Your task to perform on an android device: check the backup settings in the google photos Image 0: 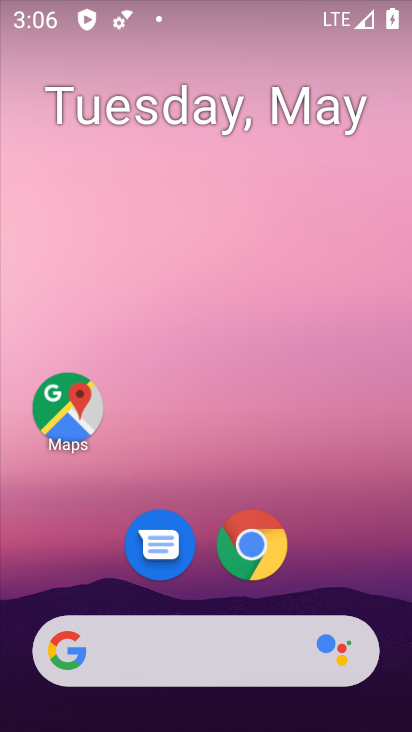
Step 0: drag from (316, 531) to (325, 188)
Your task to perform on an android device: check the backup settings in the google photos Image 1: 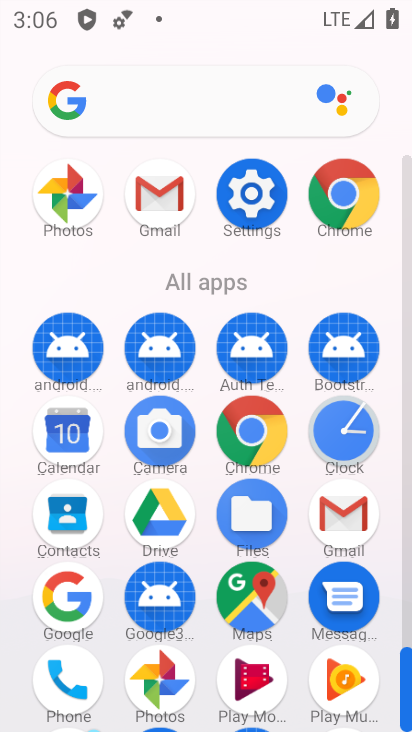
Step 1: click (80, 197)
Your task to perform on an android device: check the backup settings in the google photos Image 2: 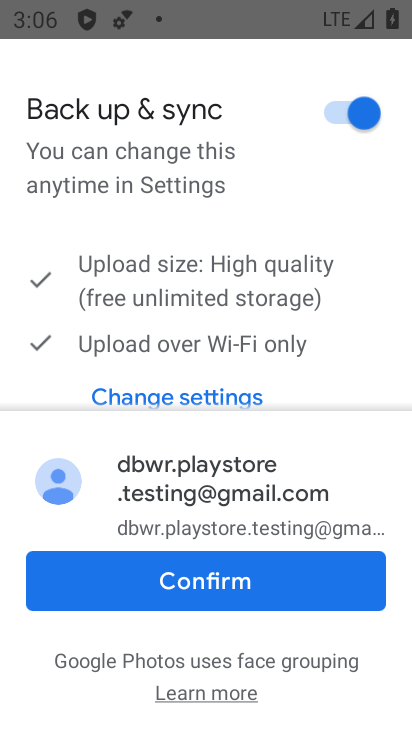
Step 2: click (207, 582)
Your task to perform on an android device: check the backup settings in the google photos Image 3: 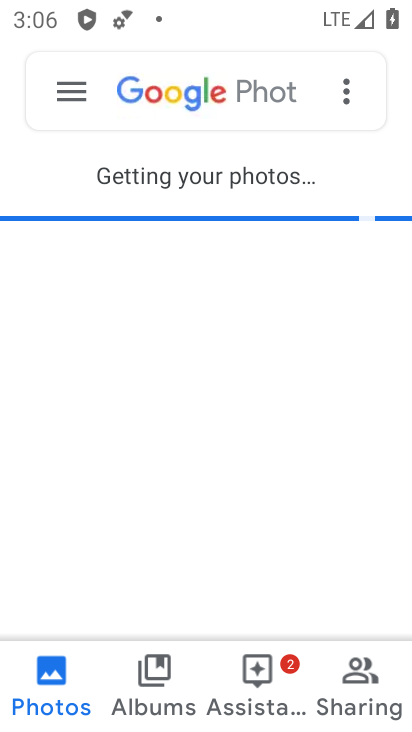
Step 3: click (73, 94)
Your task to perform on an android device: check the backup settings in the google photos Image 4: 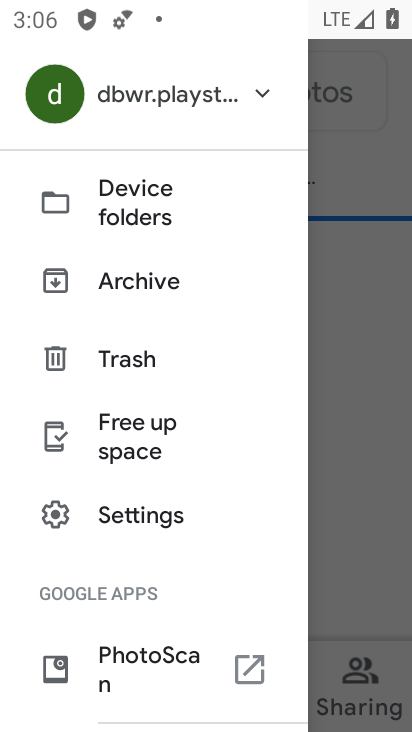
Step 4: click (142, 515)
Your task to perform on an android device: check the backup settings in the google photos Image 5: 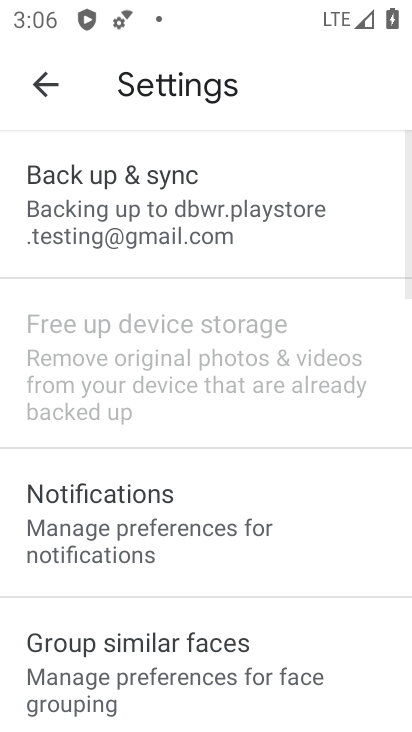
Step 5: click (134, 225)
Your task to perform on an android device: check the backup settings in the google photos Image 6: 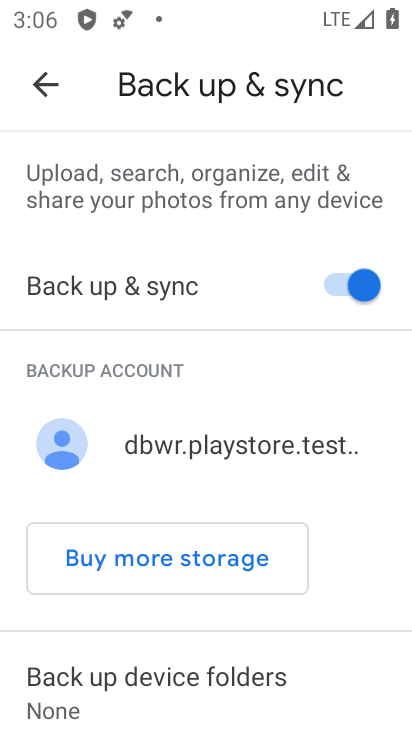
Step 6: task complete